Your task to perform on an android device: toggle pop-ups in chrome Image 0: 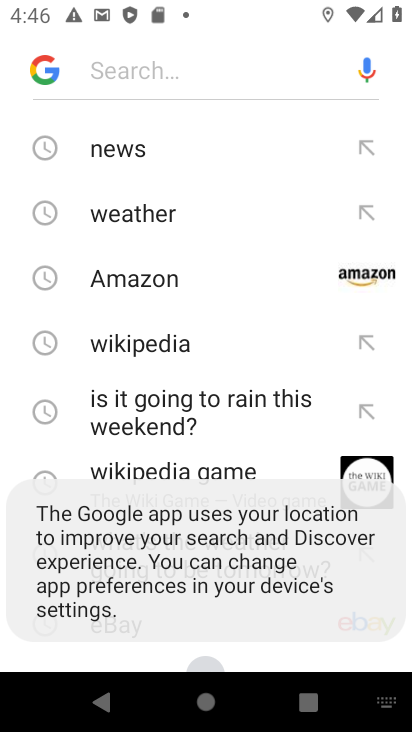
Step 0: press home button
Your task to perform on an android device: toggle pop-ups in chrome Image 1: 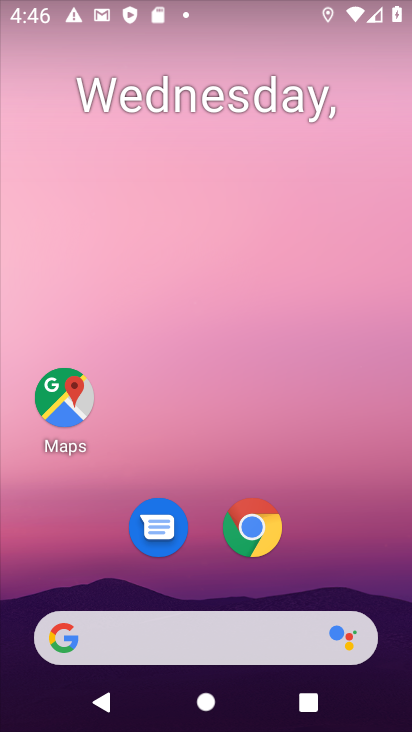
Step 1: click (259, 520)
Your task to perform on an android device: toggle pop-ups in chrome Image 2: 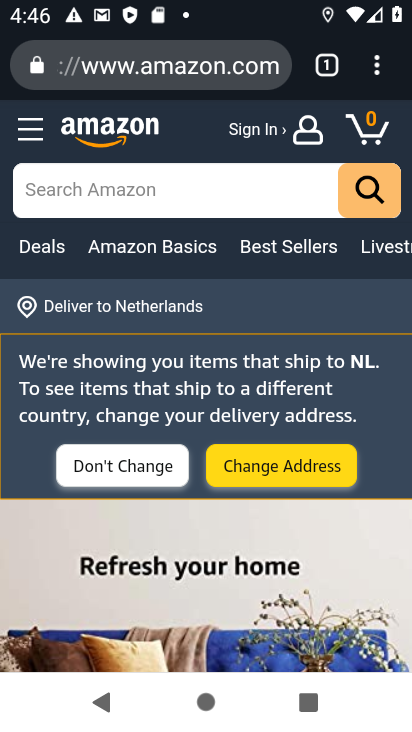
Step 2: click (378, 67)
Your task to perform on an android device: toggle pop-ups in chrome Image 3: 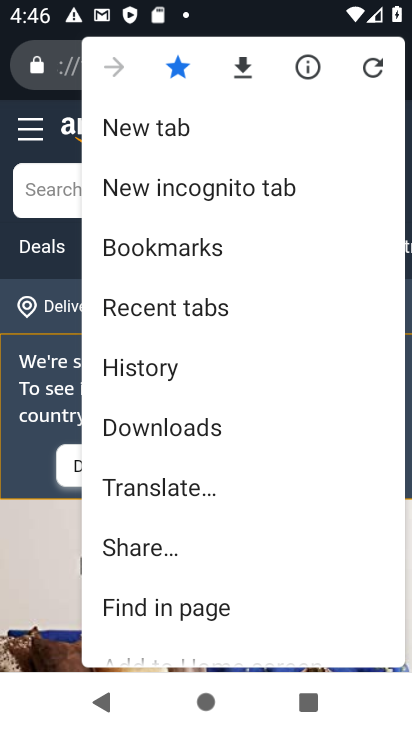
Step 3: drag from (129, 618) to (152, 460)
Your task to perform on an android device: toggle pop-ups in chrome Image 4: 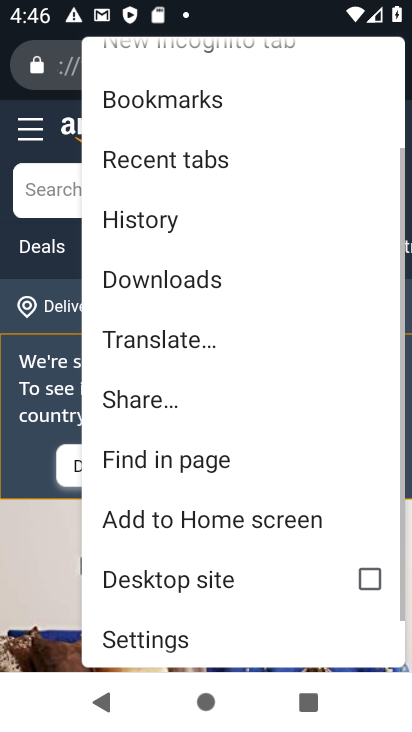
Step 4: click (147, 635)
Your task to perform on an android device: toggle pop-ups in chrome Image 5: 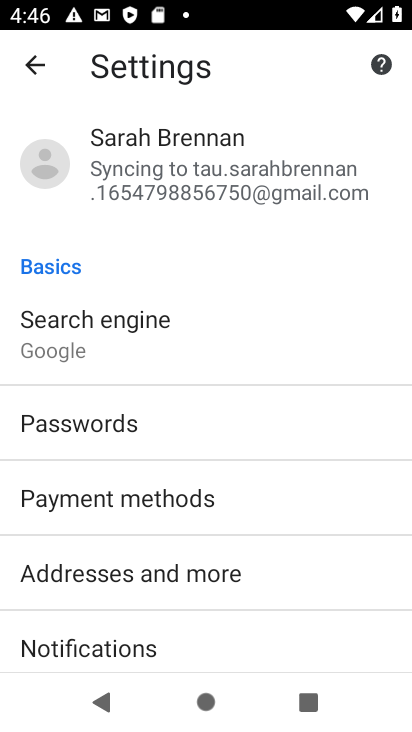
Step 5: drag from (154, 659) to (154, 496)
Your task to perform on an android device: toggle pop-ups in chrome Image 6: 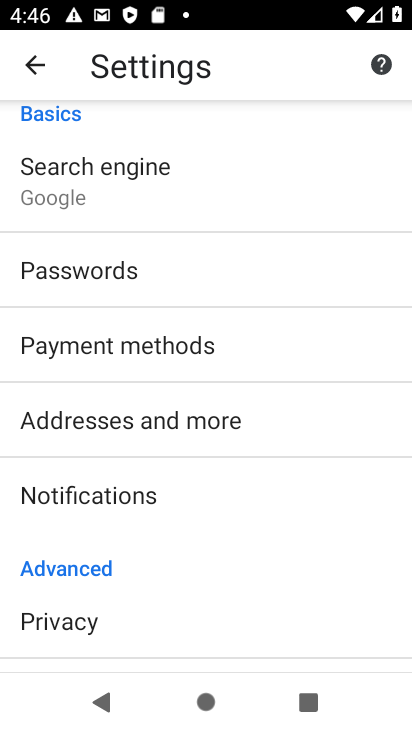
Step 6: drag from (71, 656) to (95, 449)
Your task to perform on an android device: toggle pop-ups in chrome Image 7: 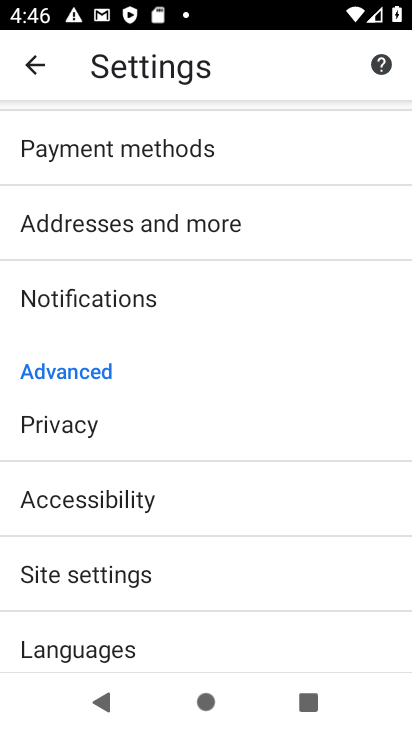
Step 7: click (102, 569)
Your task to perform on an android device: toggle pop-ups in chrome Image 8: 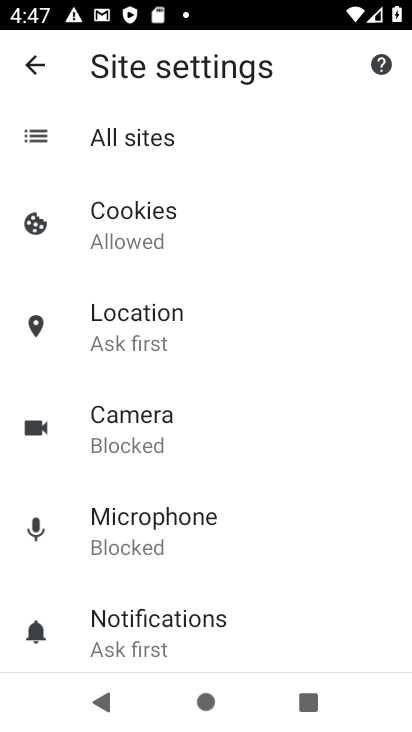
Step 8: drag from (127, 653) to (127, 489)
Your task to perform on an android device: toggle pop-ups in chrome Image 9: 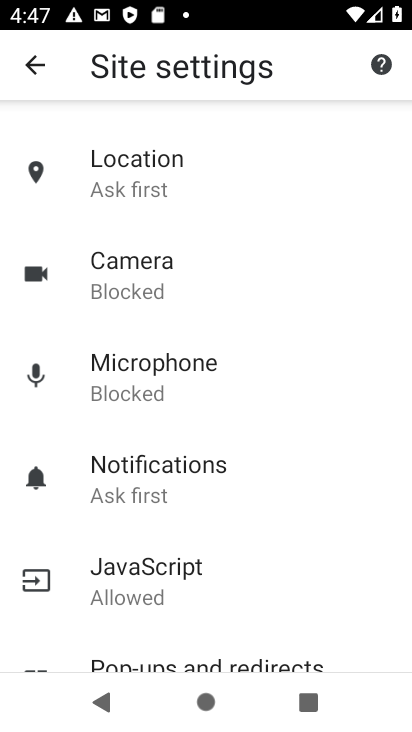
Step 9: drag from (142, 630) to (155, 470)
Your task to perform on an android device: toggle pop-ups in chrome Image 10: 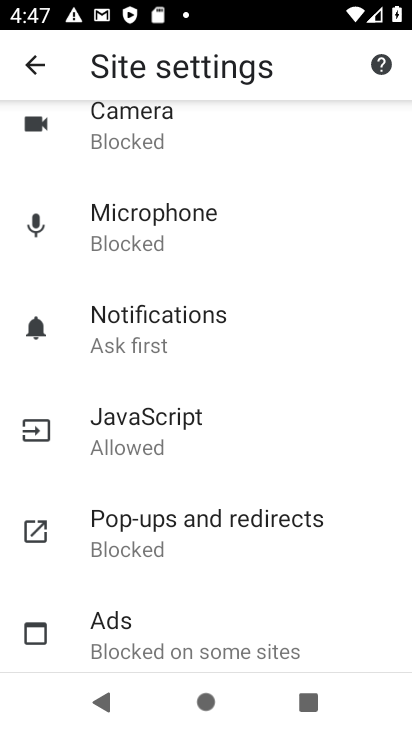
Step 10: click (156, 539)
Your task to perform on an android device: toggle pop-ups in chrome Image 11: 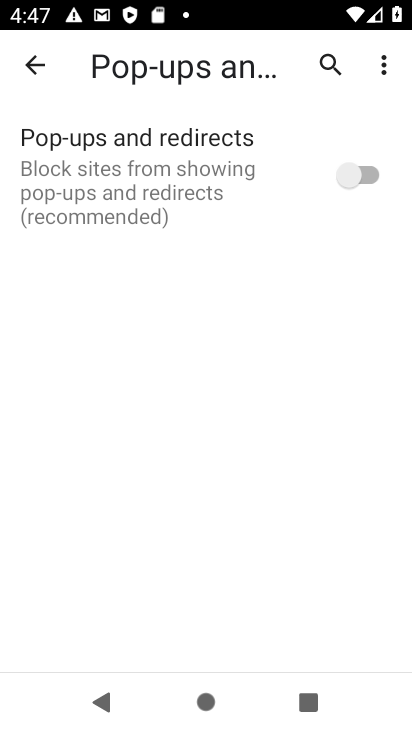
Step 11: click (371, 179)
Your task to perform on an android device: toggle pop-ups in chrome Image 12: 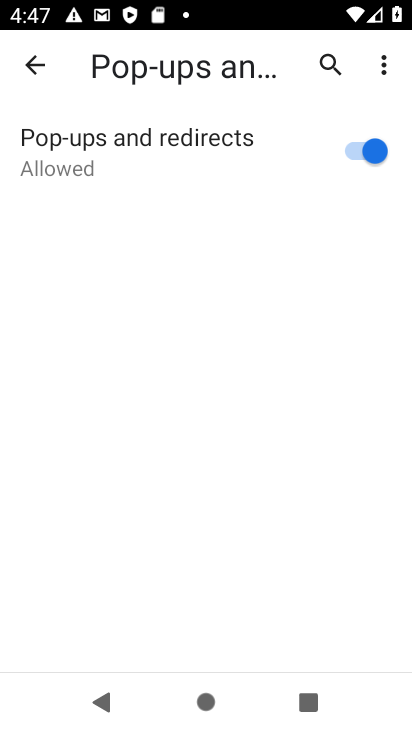
Step 12: task complete